Your task to perform on an android device: Open calendar and show me the second week of next month Image 0: 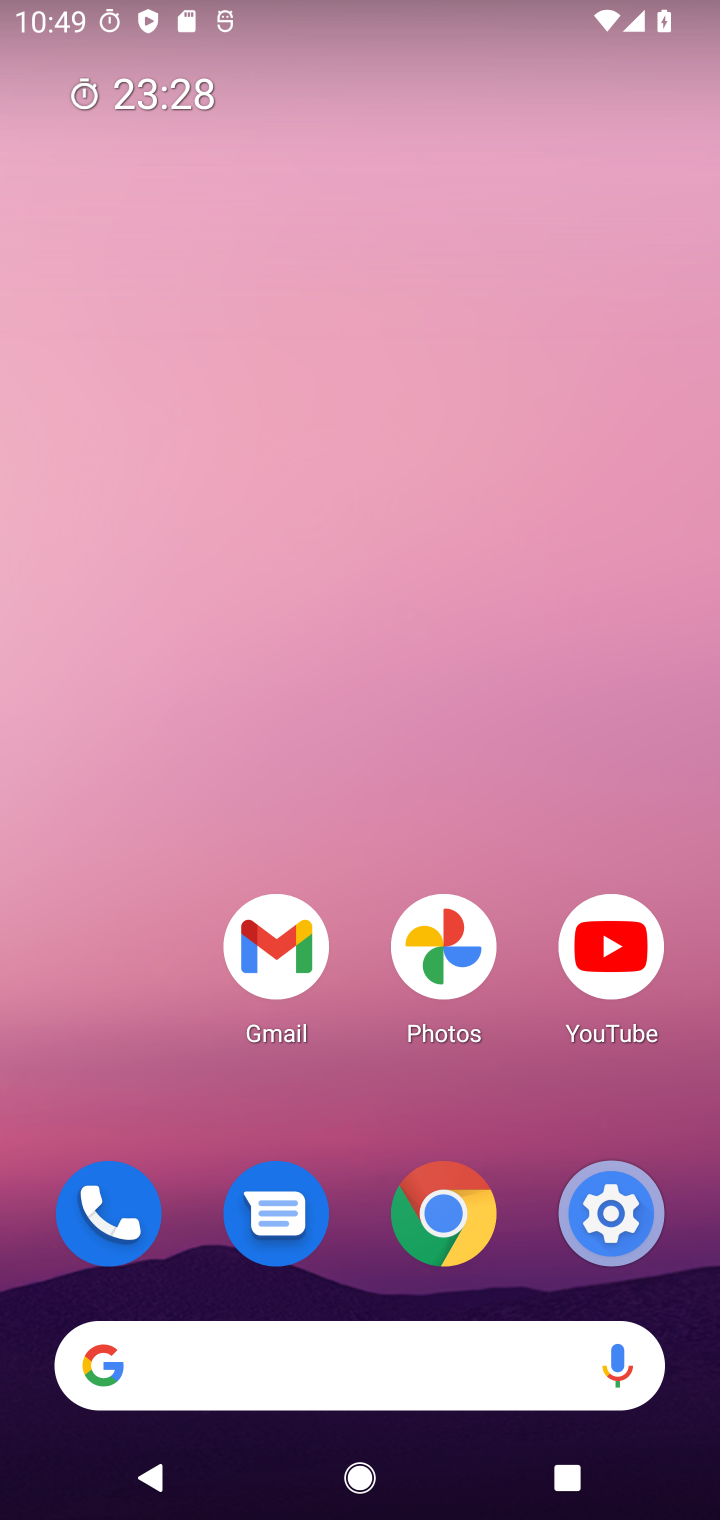
Step 0: drag from (393, 1082) to (342, 281)
Your task to perform on an android device: Open calendar and show me the second week of next month Image 1: 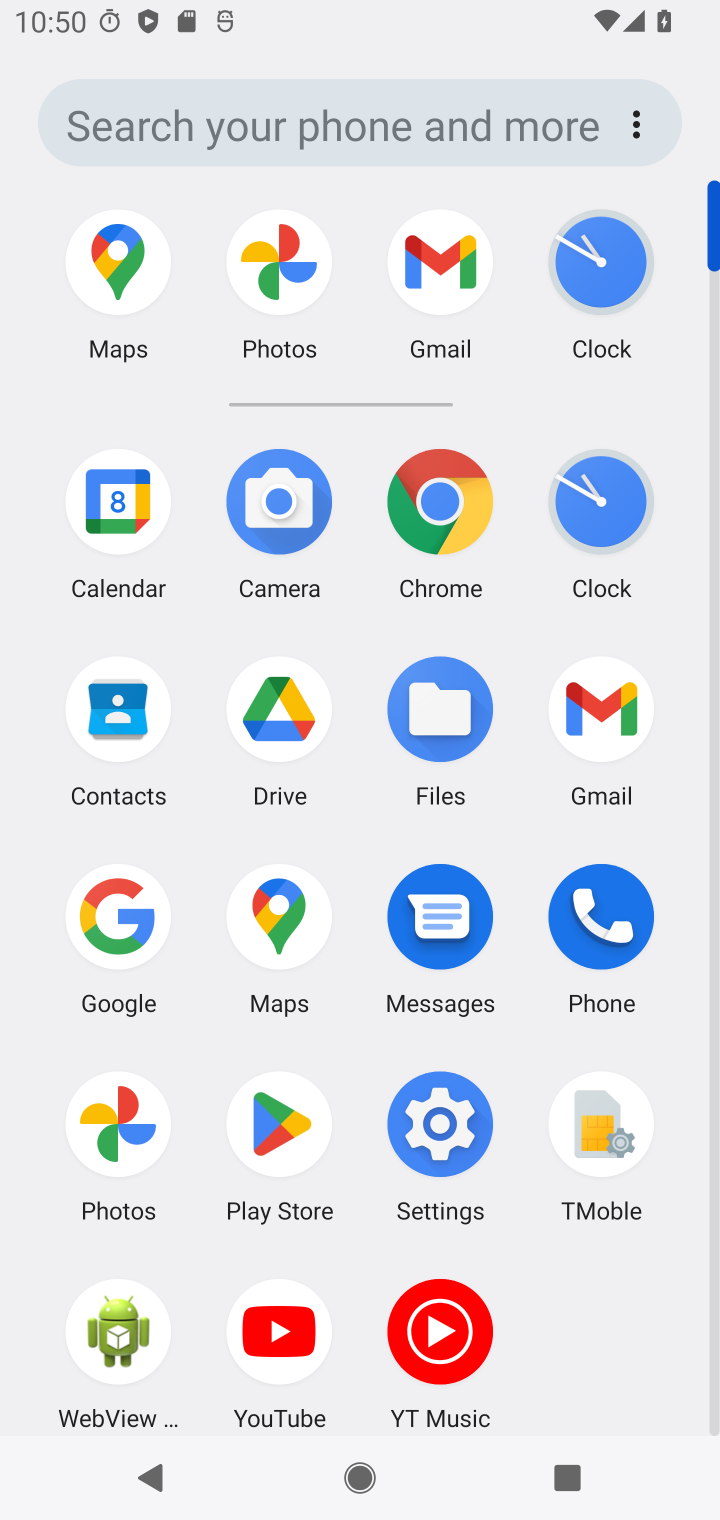
Step 1: click (114, 515)
Your task to perform on an android device: Open calendar and show me the second week of next month Image 2: 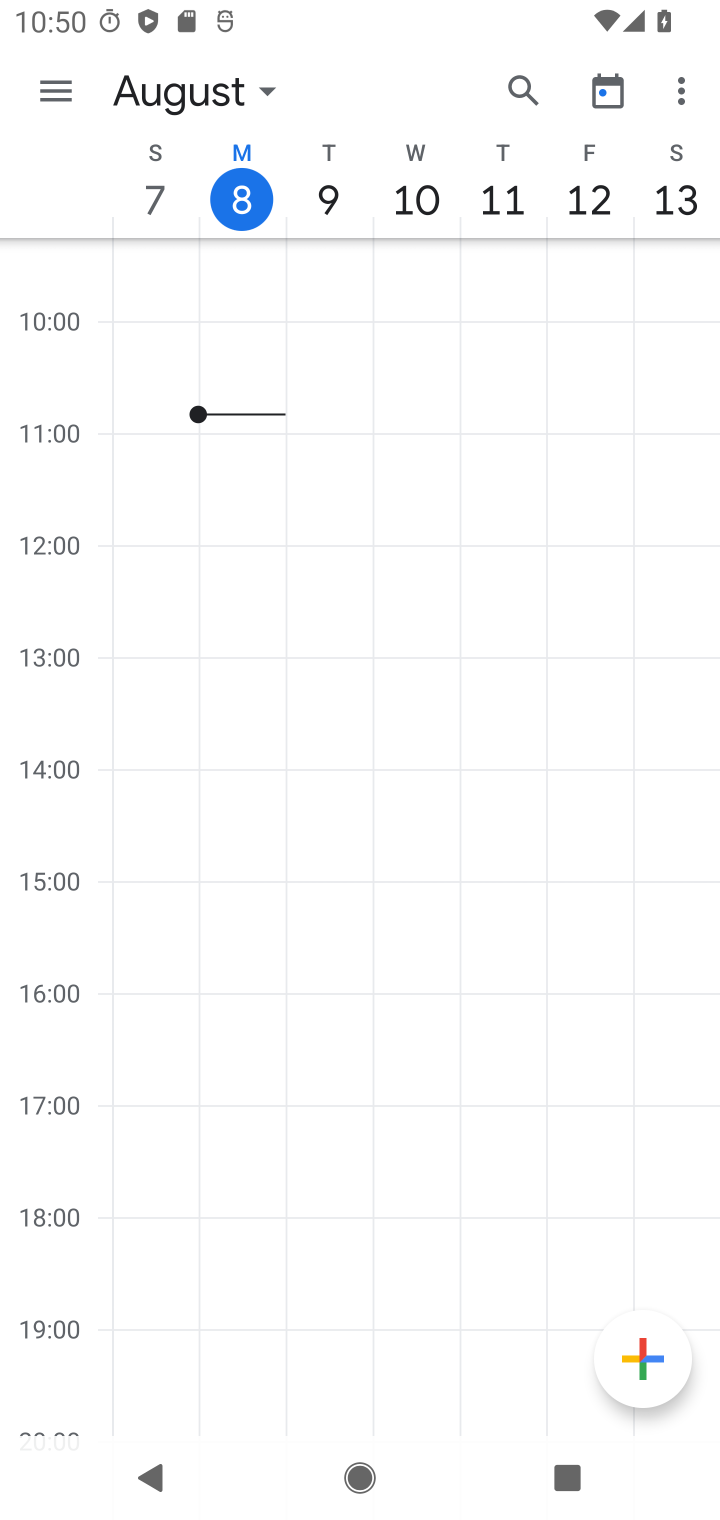
Step 2: click (245, 98)
Your task to perform on an android device: Open calendar and show me the second week of next month Image 3: 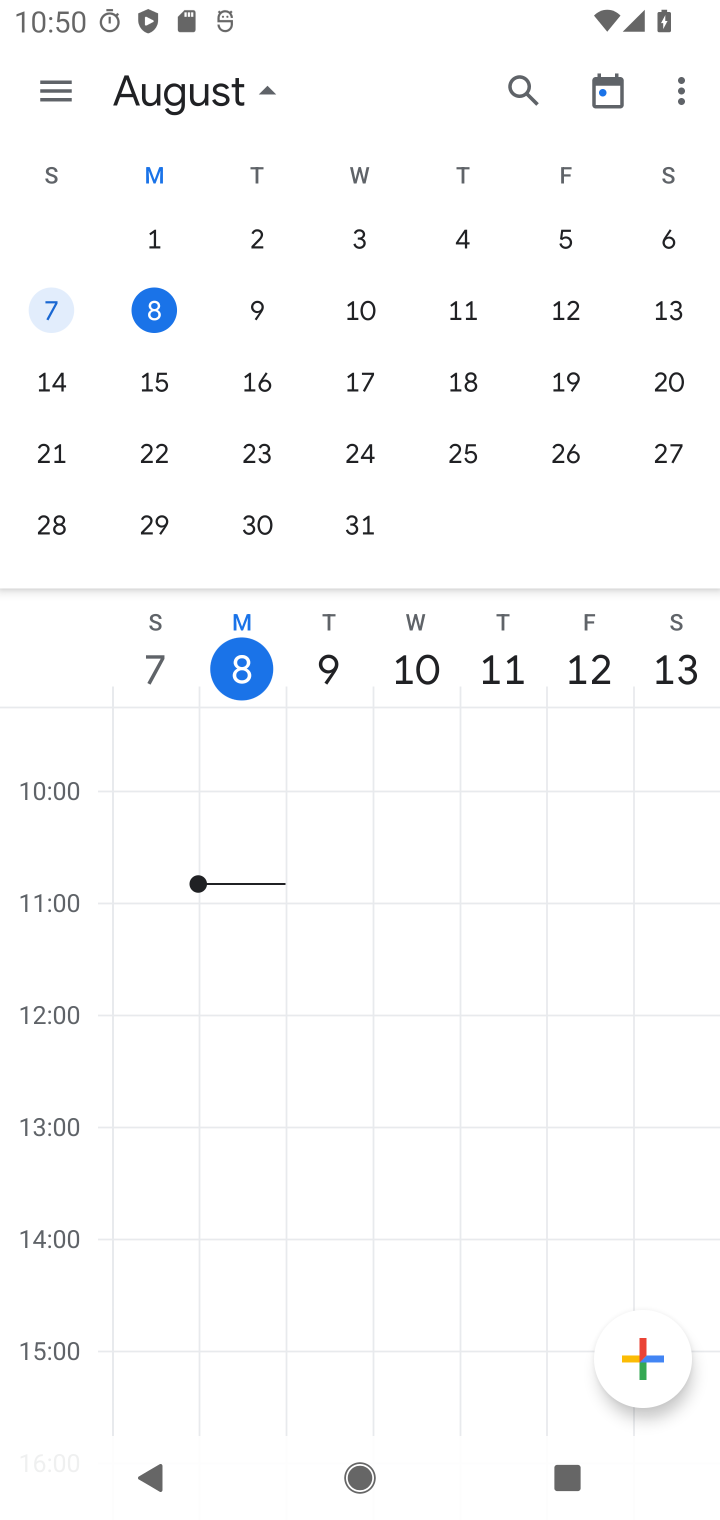
Step 3: drag from (619, 344) to (0, 461)
Your task to perform on an android device: Open calendar and show me the second week of next month Image 4: 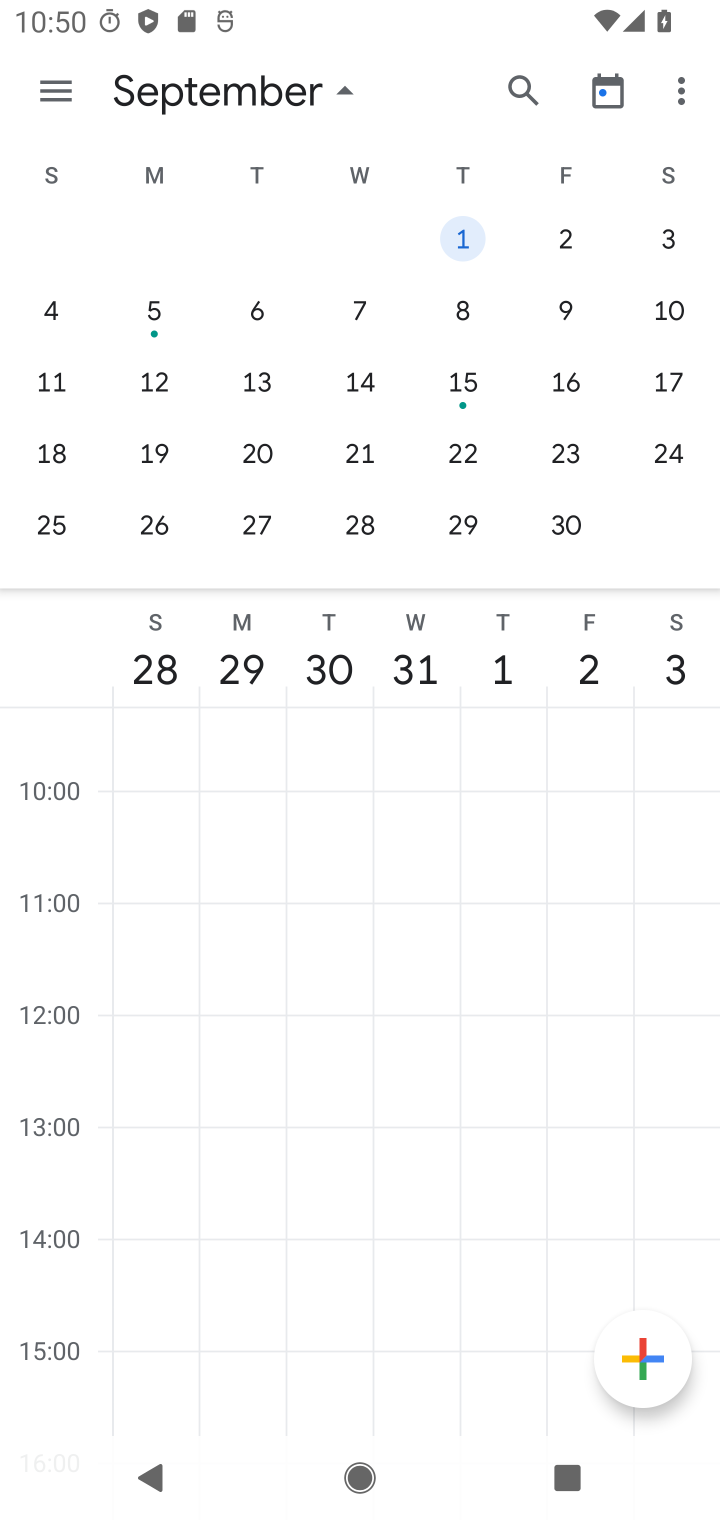
Step 4: click (57, 400)
Your task to perform on an android device: Open calendar and show me the second week of next month Image 5: 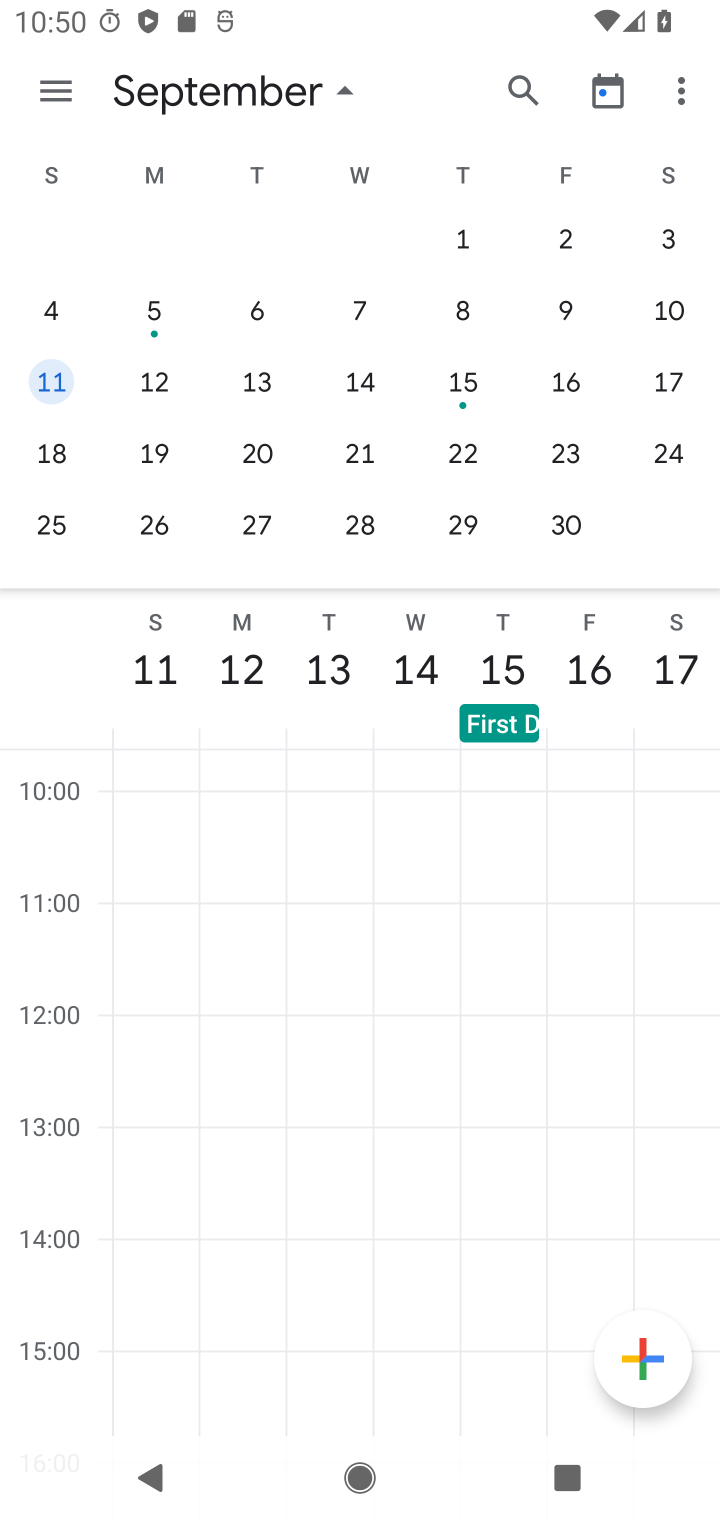
Step 5: click (296, 107)
Your task to perform on an android device: Open calendar and show me the second week of next month Image 6: 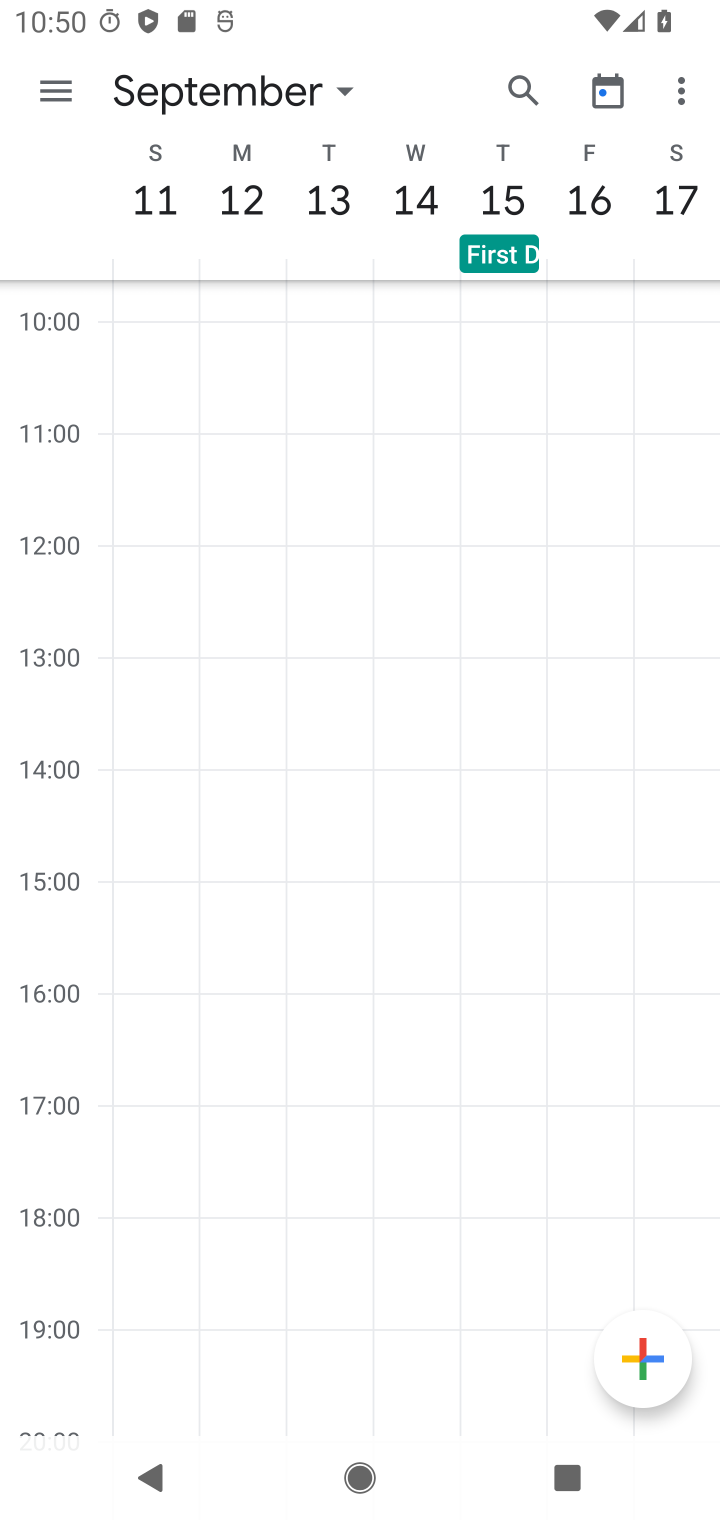
Step 6: task complete